Your task to perform on an android device: Go to privacy settings Image 0: 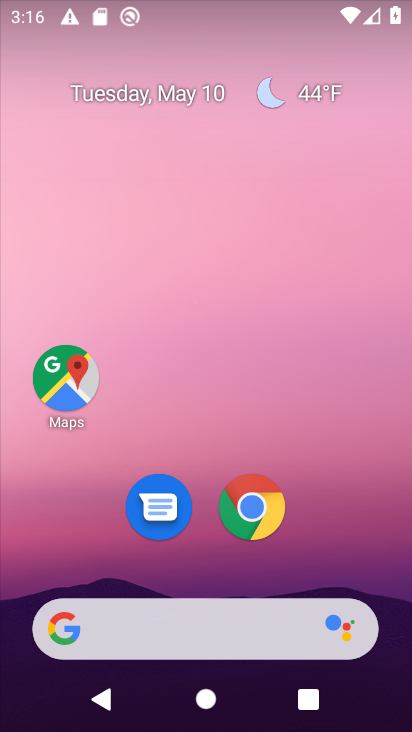
Step 0: click (255, 521)
Your task to perform on an android device: Go to privacy settings Image 1: 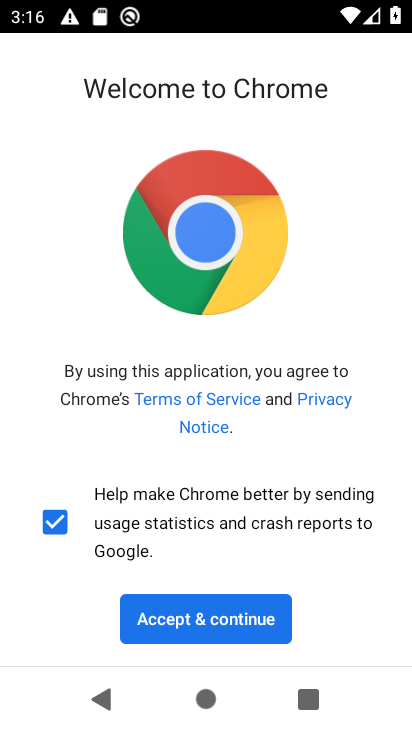
Step 1: click (252, 612)
Your task to perform on an android device: Go to privacy settings Image 2: 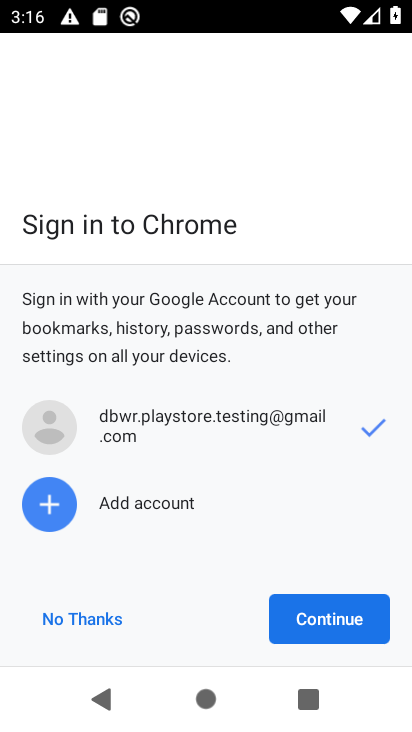
Step 2: click (352, 628)
Your task to perform on an android device: Go to privacy settings Image 3: 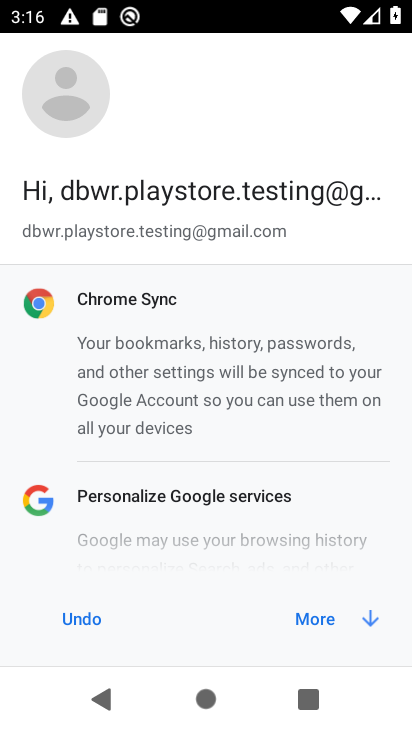
Step 3: click (345, 623)
Your task to perform on an android device: Go to privacy settings Image 4: 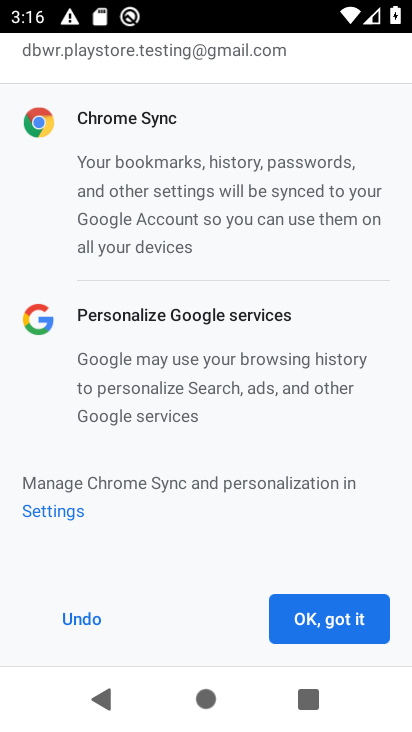
Step 4: click (345, 623)
Your task to perform on an android device: Go to privacy settings Image 5: 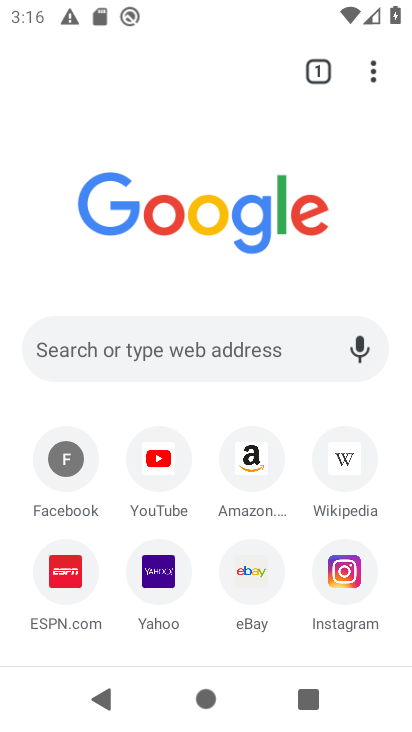
Step 5: drag from (377, 79) to (263, 507)
Your task to perform on an android device: Go to privacy settings Image 6: 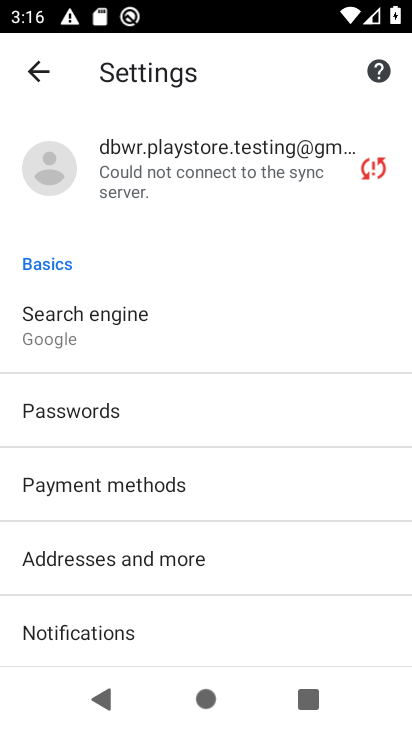
Step 6: drag from (157, 642) to (256, 250)
Your task to perform on an android device: Go to privacy settings Image 7: 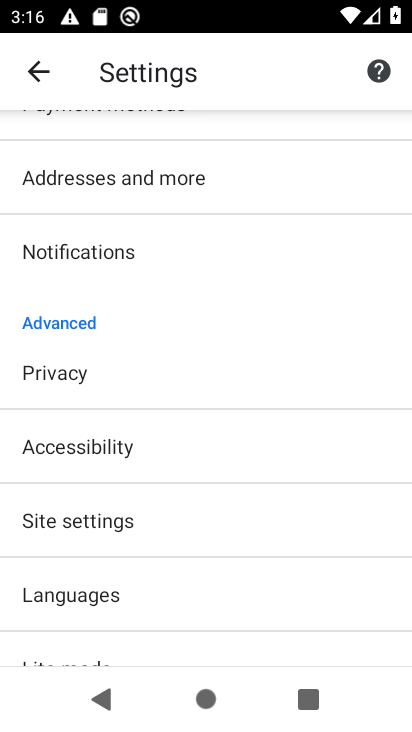
Step 7: click (155, 380)
Your task to perform on an android device: Go to privacy settings Image 8: 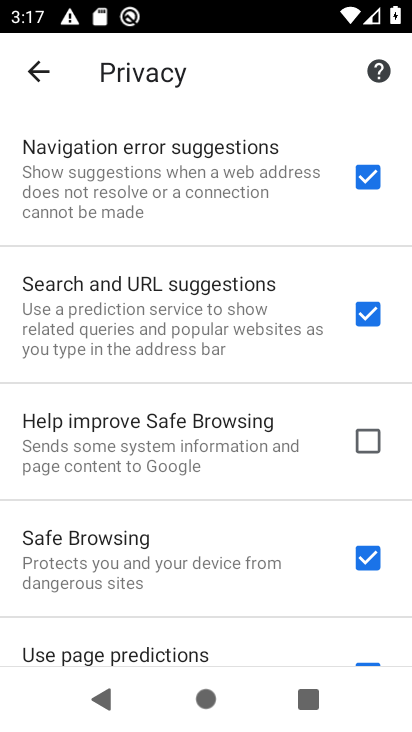
Step 8: task complete